Your task to perform on an android device: When is my next meeting? Image 0: 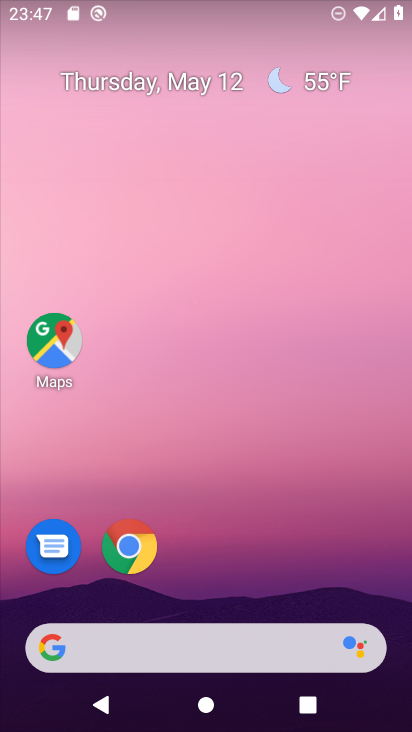
Step 0: drag from (149, 597) to (211, 235)
Your task to perform on an android device: When is my next meeting? Image 1: 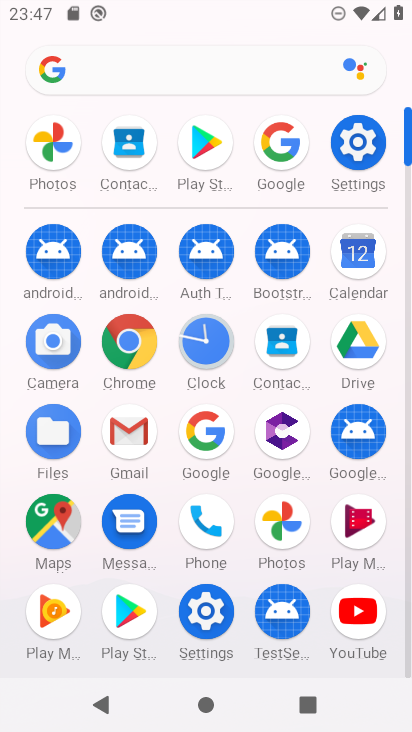
Step 1: click (358, 254)
Your task to perform on an android device: When is my next meeting? Image 2: 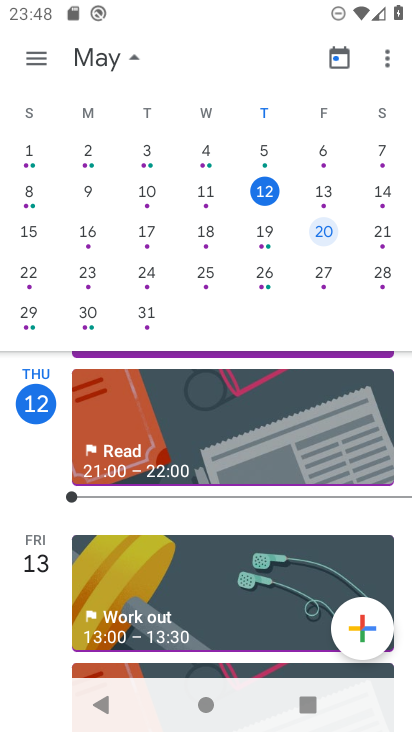
Step 2: click (319, 187)
Your task to perform on an android device: When is my next meeting? Image 3: 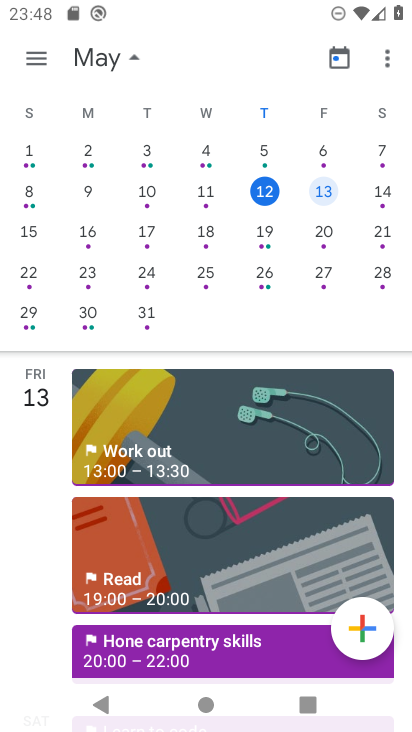
Step 3: click (384, 192)
Your task to perform on an android device: When is my next meeting? Image 4: 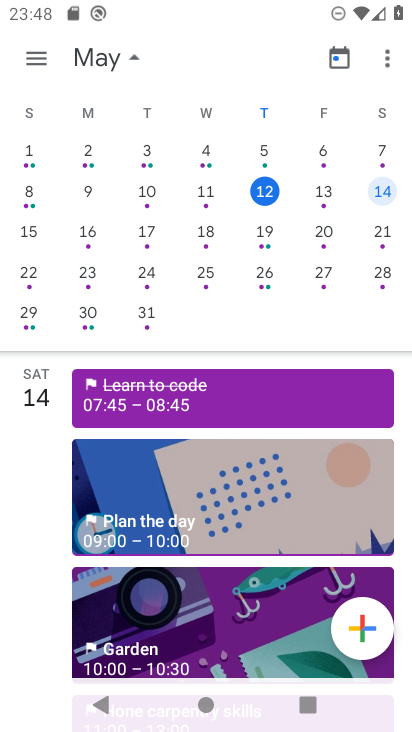
Step 4: click (35, 236)
Your task to perform on an android device: When is my next meeting? Image 5: 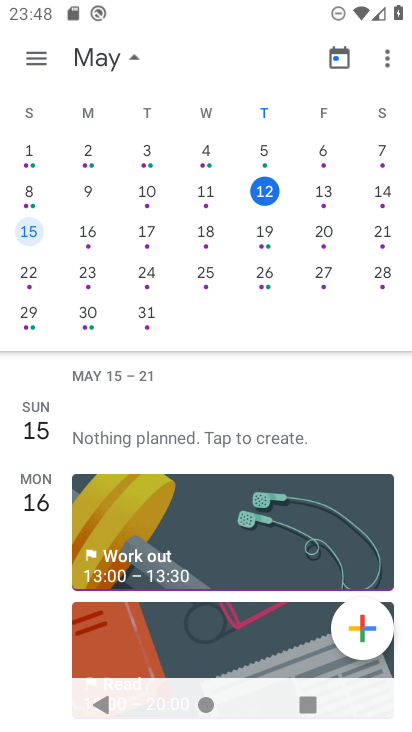
Step 5: click (94, 230)
Your task to perform on an android device: When is my next meeting? Image 6: 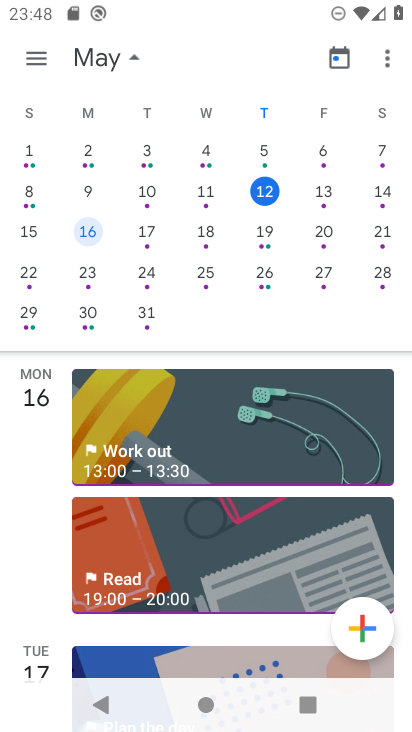
Step 6: click (147, 227)
Your task to perform on an android device: When is my next meeting? Image 7: 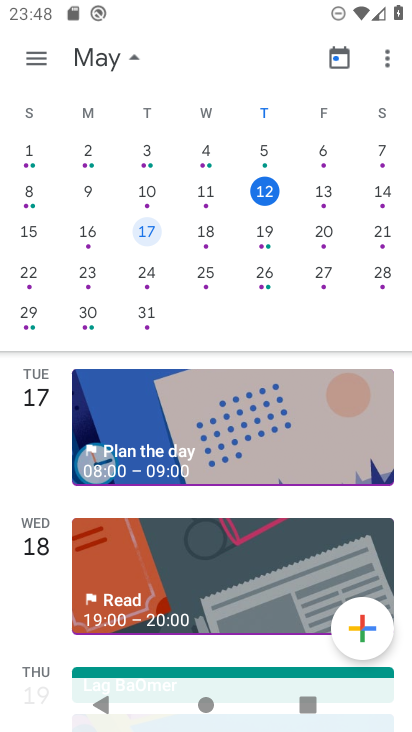
Step 7: click (193, 219)
Your task to perform on an android device: When is my next meeting? Image 8: 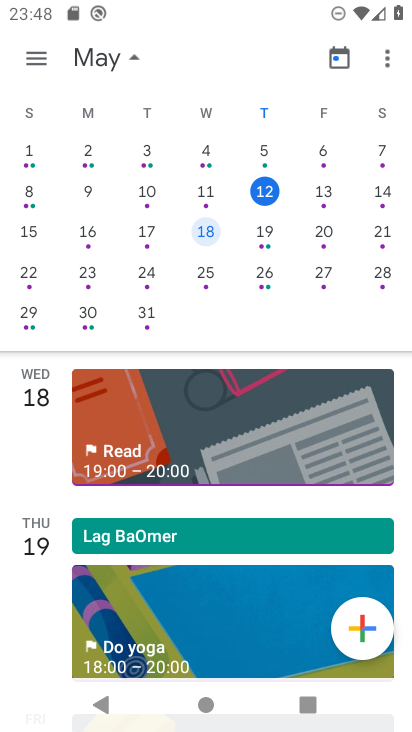
Step 8: click (269, 231)
Your task to perform on an android device: When is my next meeting? Image 9: 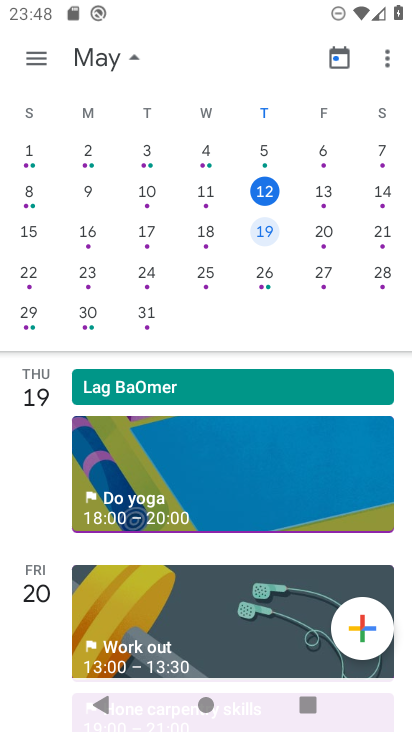
Step 9: click (321, 224)
Your task to perform on an android device: When is my next meeting? Image 10: 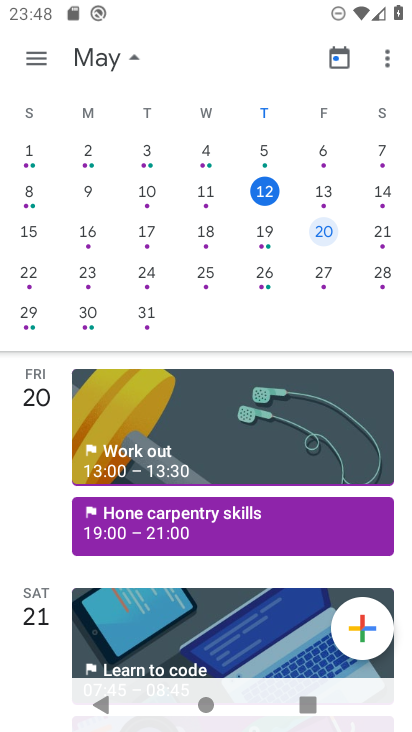
Step 10: click (382, 225)
Your task to perform on an android device: When is my next meeting? Image 11: 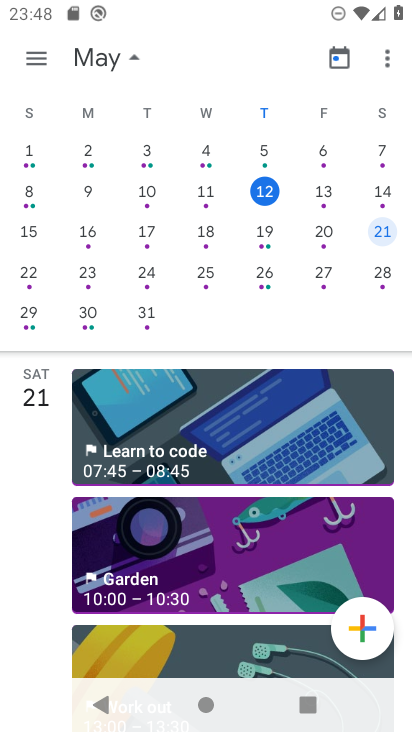
Step 11: click (39, 274)
Your task to perform on an android device: When is my next meeting? Image 12: 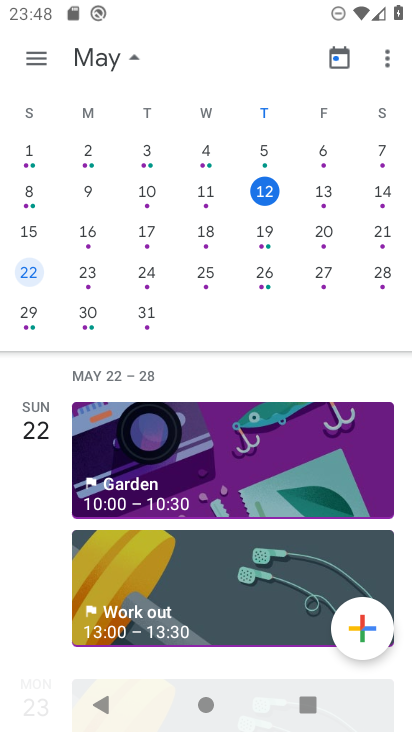
Step 12: click (85, 264)
Your task to perform on an android device: When is my next meeting? Image 13: 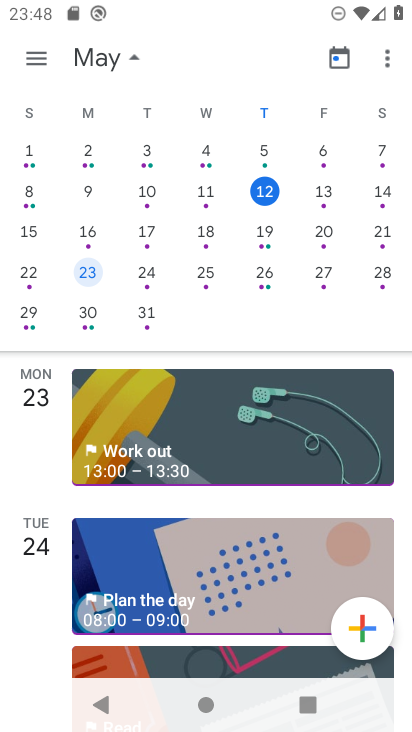
Step 13: click (149, 284)
Your task to perform on an android device: When is my next meeting? Image 14: 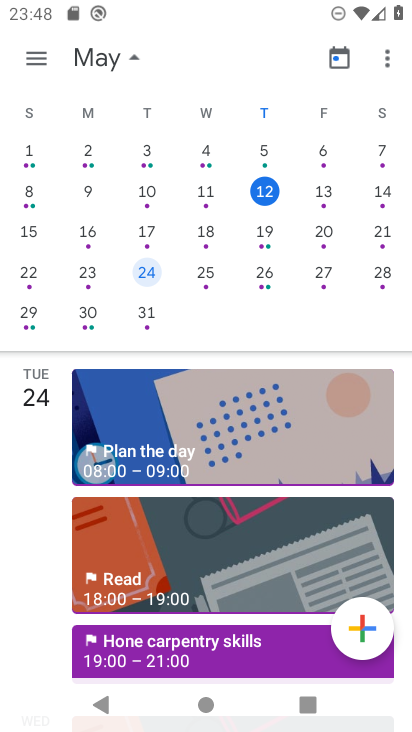
Step 14: click (202, 272)
Your task to perform on an android device: When is my next meeting? Image 15: 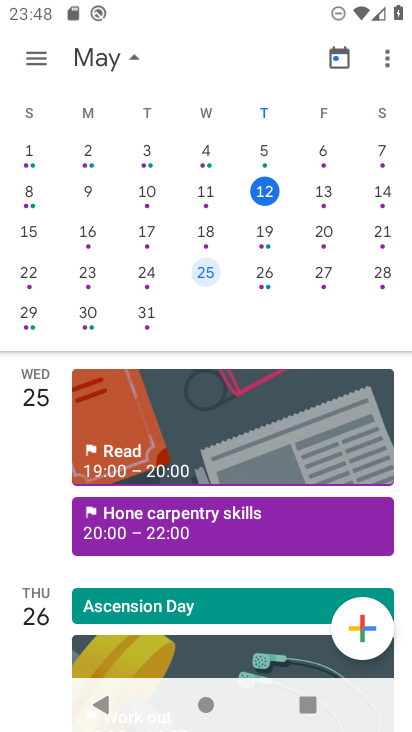
Step 15: click (261, 270)
Your task to perform on an android device: When is my next meeting? Image 16: 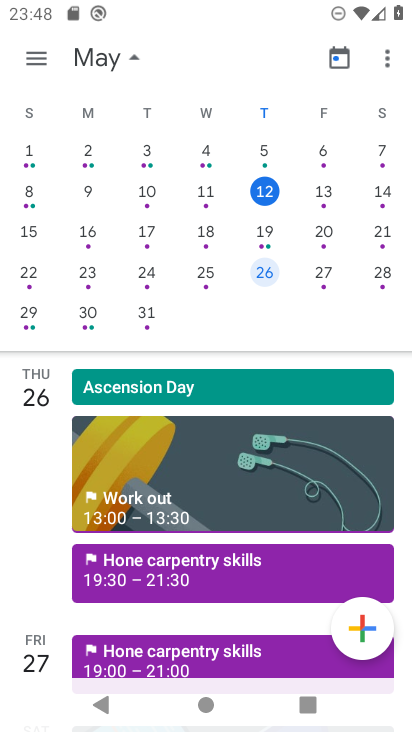
Step 16: click (363, 277)
Your task to perform on an android device: When is my next meeting? Image 17: 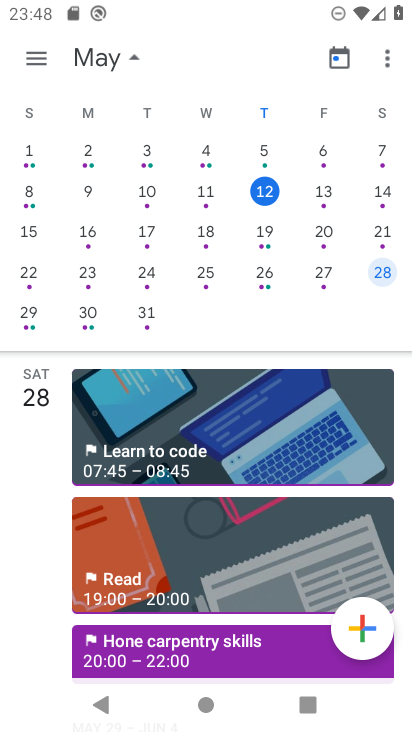
Step 17: click (396, 267)
Your task to perform on an android device: When is my next meeting? Image 18: 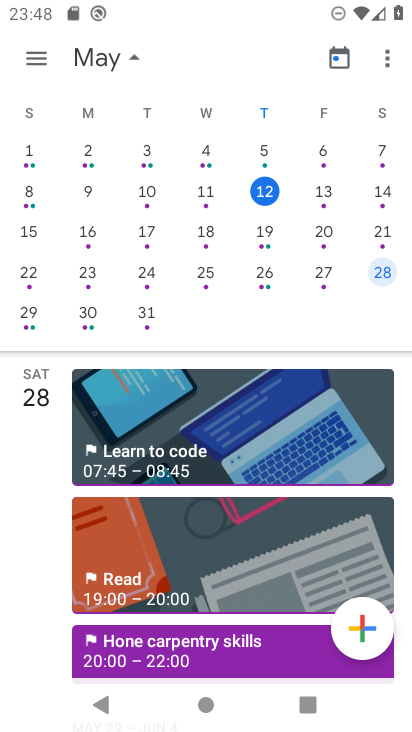
Step 18: click (31, 319)
Your task to perform on an android device: When is my next meeting? Image 19: 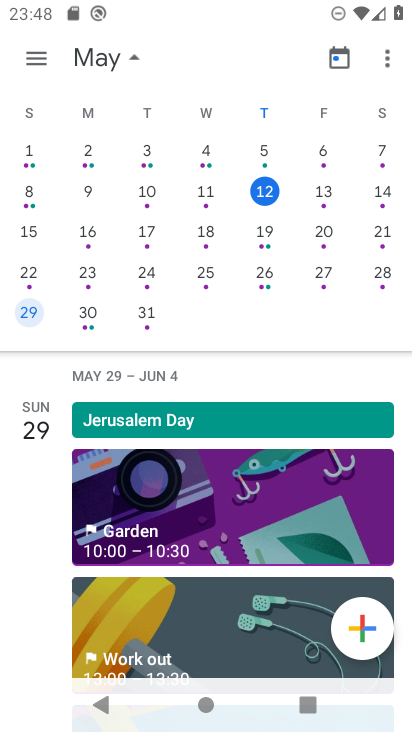
Step 19: click (111, 316)
Your task to perform on an android device: When is my next meeting? Image 20: 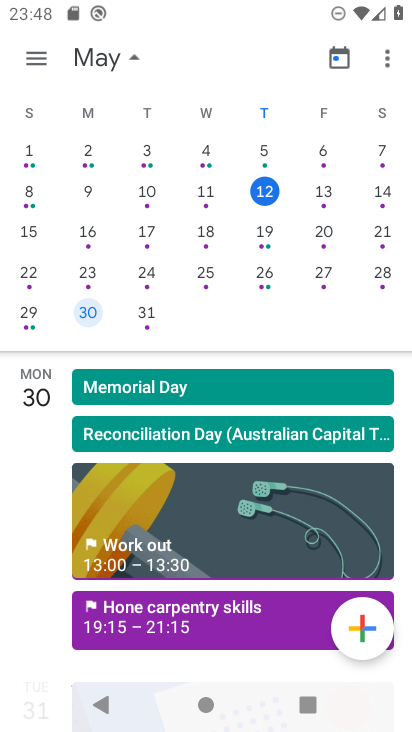
Step 20: click (149, 314)
Your task to perform on an android device: When is my next meeting? Image 21: 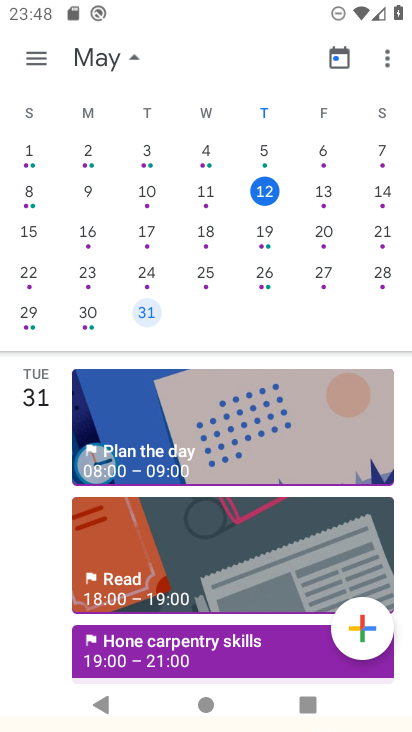
Step 21: task complete